Your task to perform on an android device: Open Yahoo.com Image 0: 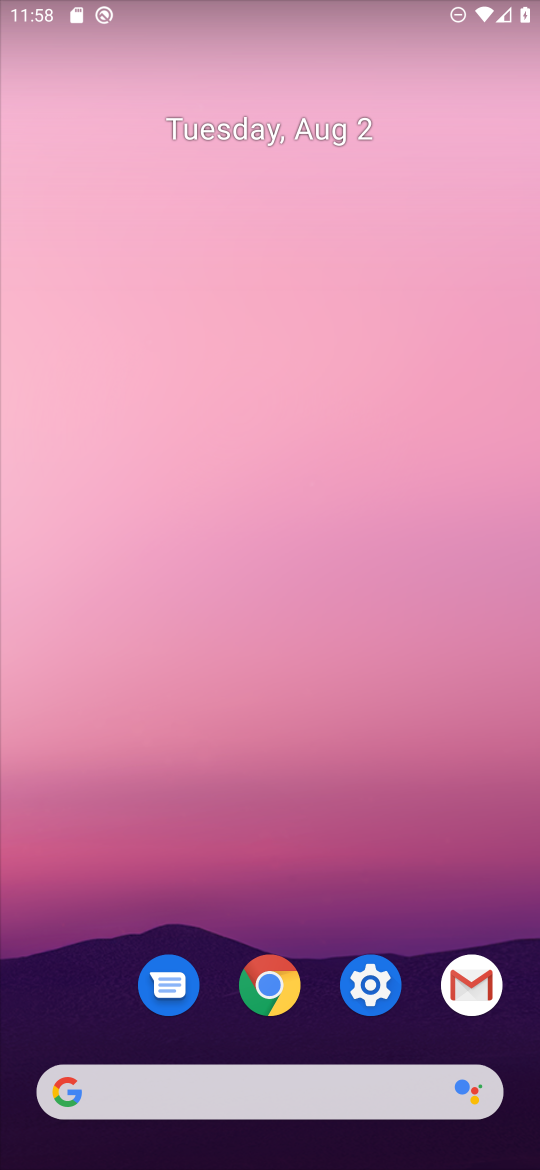
Step 0: press home button
Your task to perform on an android device: Open Yahoo.com Image 1: 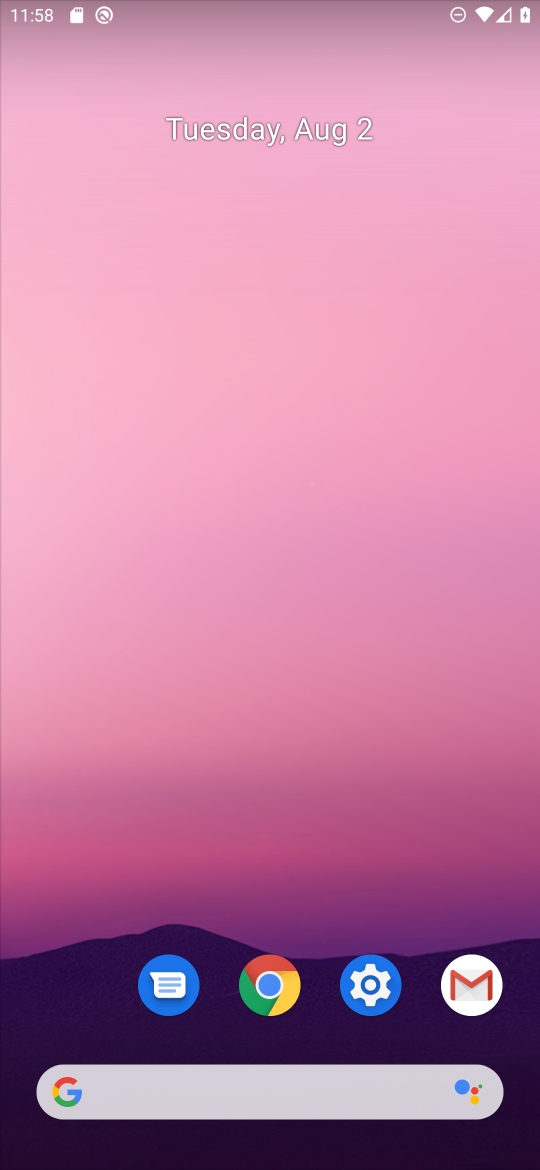
Step 1: click (286, 990)
Your task to perform on an android device: Open Yahoo.com Image 2: 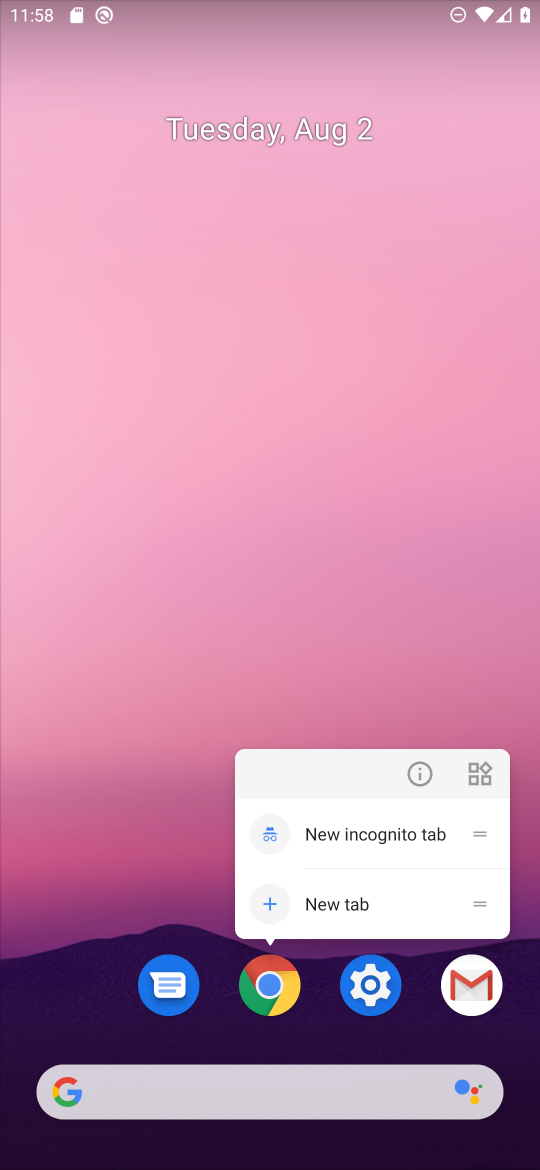
Step 2: click (308, 1109)
Your task to perform on an android device: Open Yahoo.com Image 3: 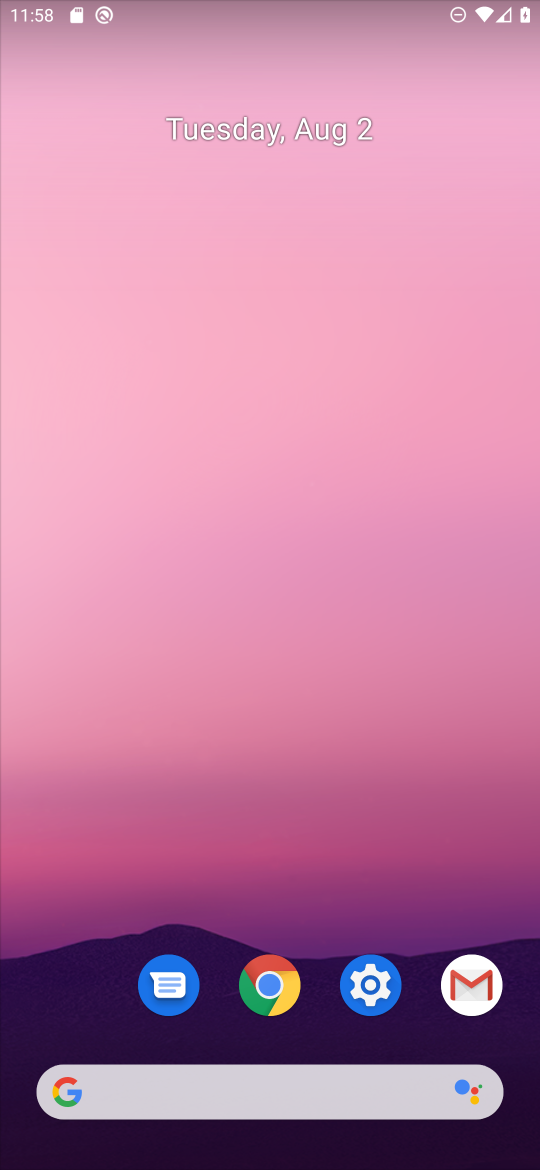
Step 3: drag from (298, 1127) to (417, 417)
Your task to perform on an android device: Open Yahoo.com Image 4: 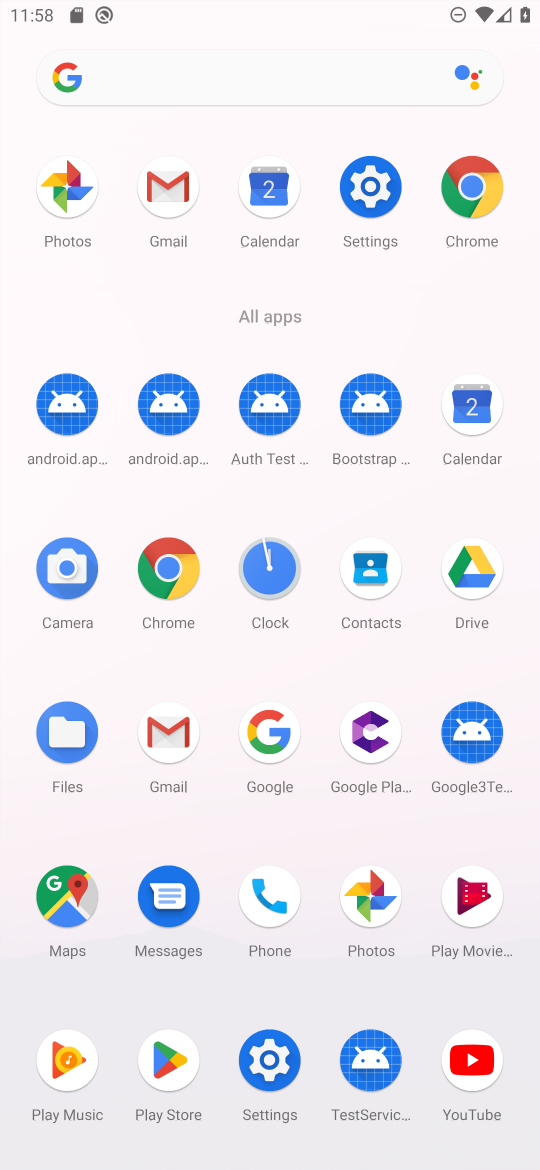
Step 4: click (169, 575)
Your task to perform on an android device: Open Yahoo.com Image 5: 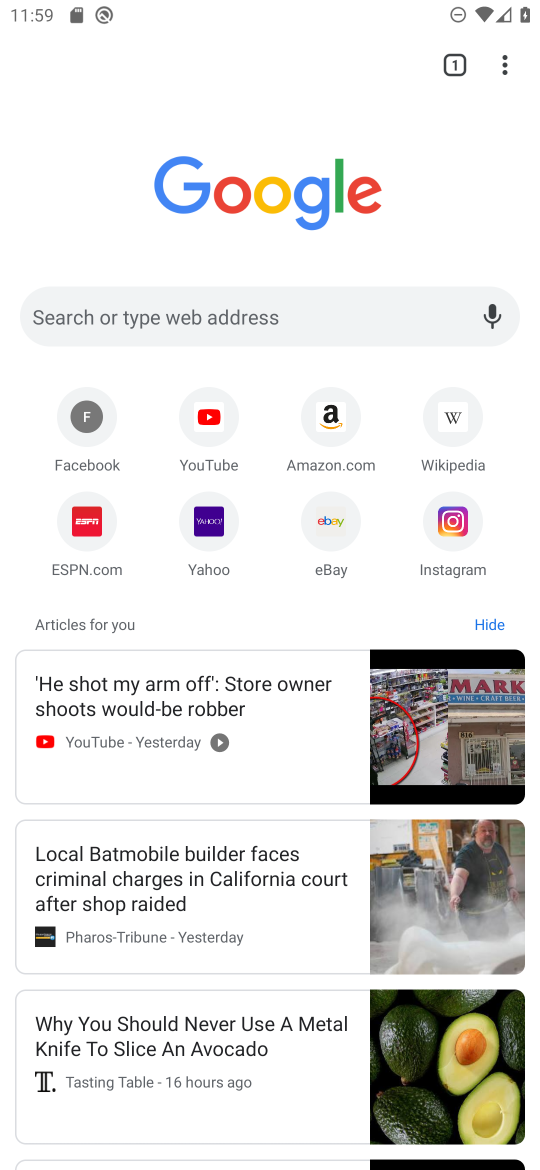
Step 5: click (208, 549)
Your task to perform on an android device: Open Yahoo.com Image 6: 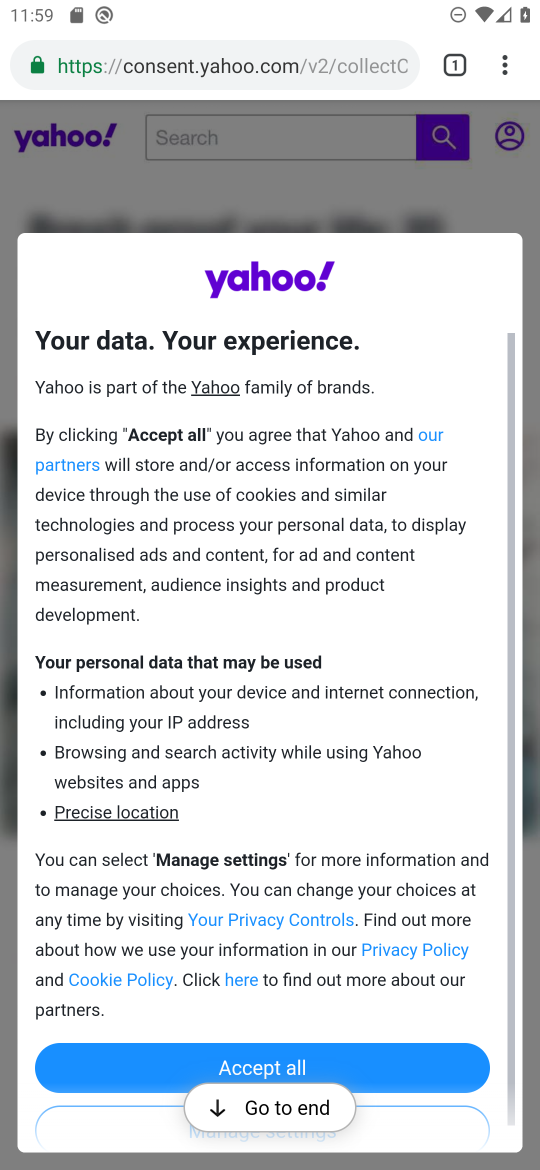
Step 6: click (322, 1060)
Your task to perform on an android device: Open Yahoo.com Image 7: 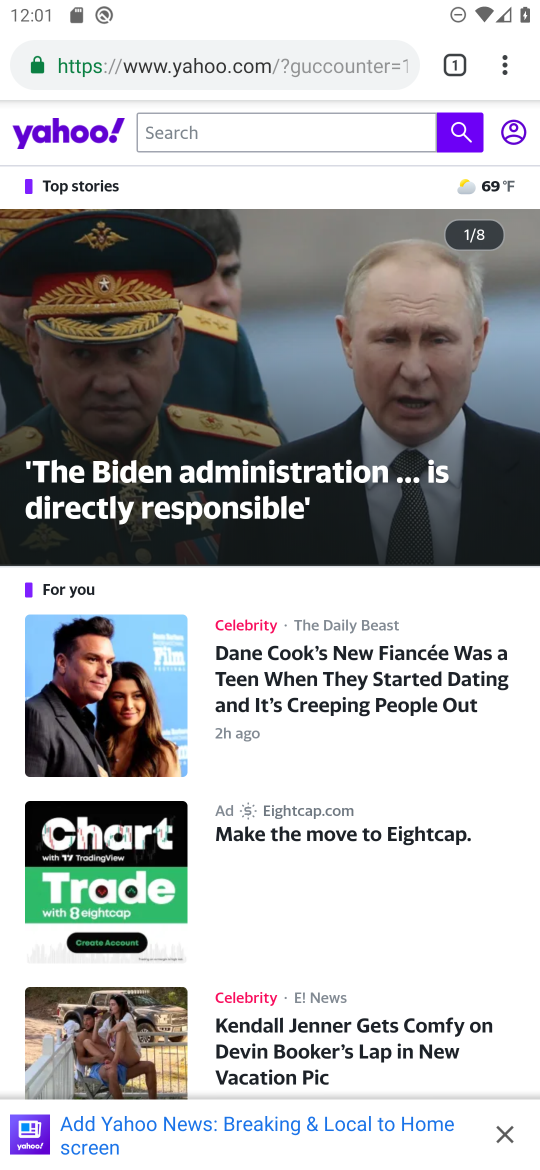
Step 7: task complete